Your task to perform on an android device: toggle show notifications on the lock screen Image 0: 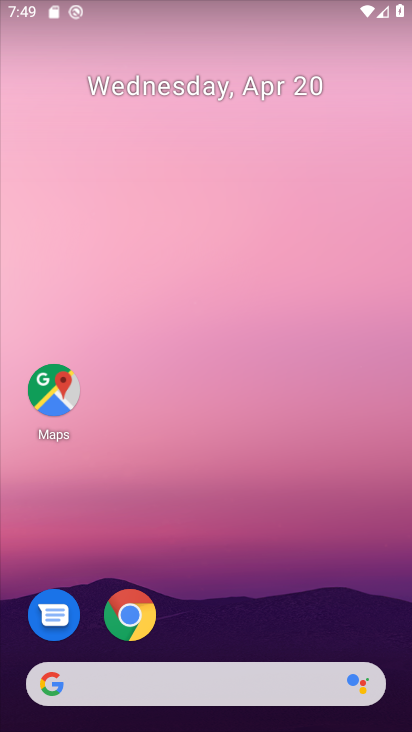
Step 0: drag from (213, 635) to (277, 161)
Your task to perform on an android device: toggle show notifications on the lock screen Image 1: 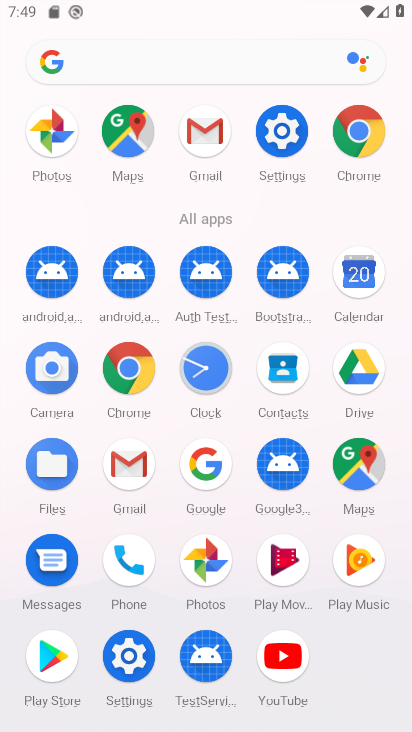
Step 1: click (292, 148)
Your task to perform on an android device: toggle show notifications on the lock screen Image 2: 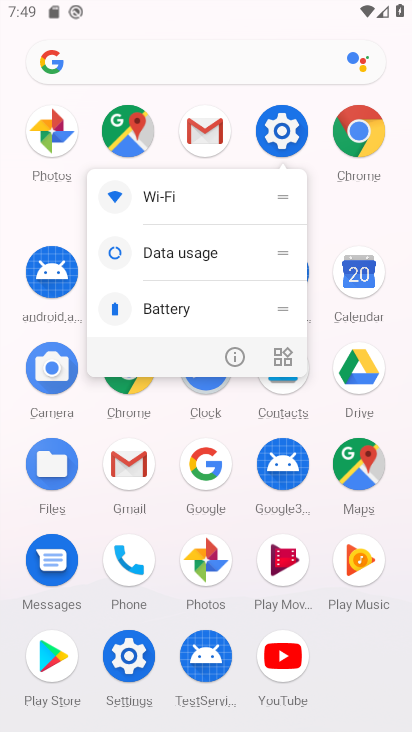
Step 2: click (287, 151)
Your task to perform on an android device: toggle show notifications on the lock screen Image 3: 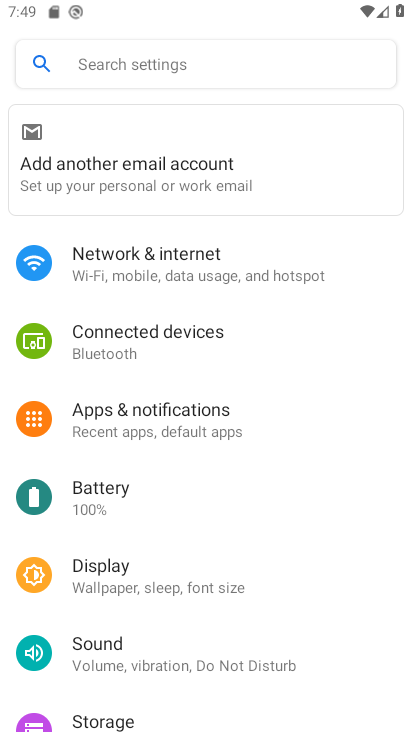
Step 3: click (167, 434)
Your task to perform on an android device: toggle show notifications on the lock screen Image 4: 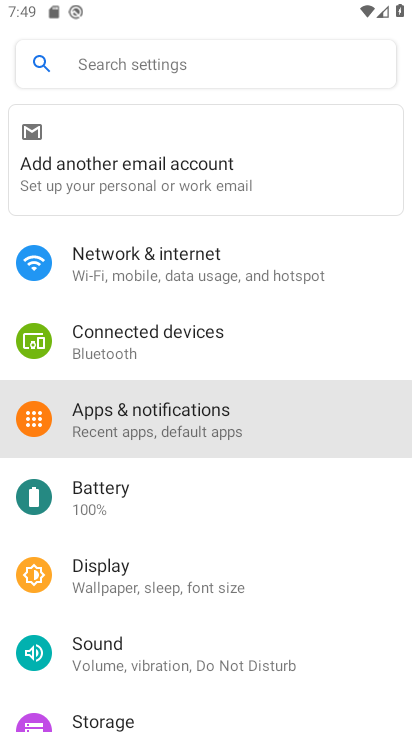
Step 4: click (169, 433)
Your task to perform on an android device: toggle show notifications on the lock screen Image 5: 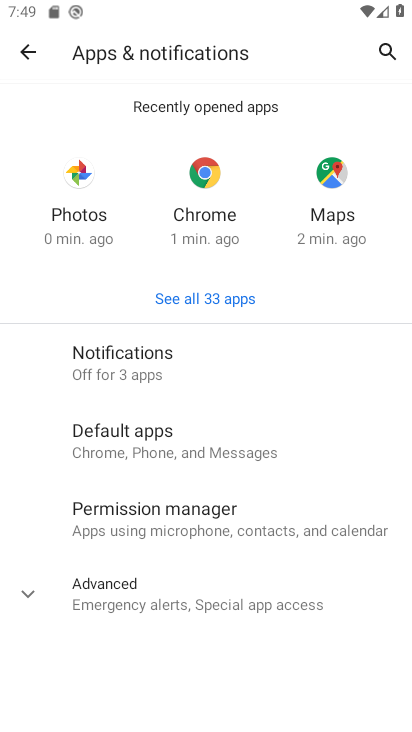
Step 5: click (103, 389)
Your task to perform on an android device: toggle show notifications on the lock screen Image 6: 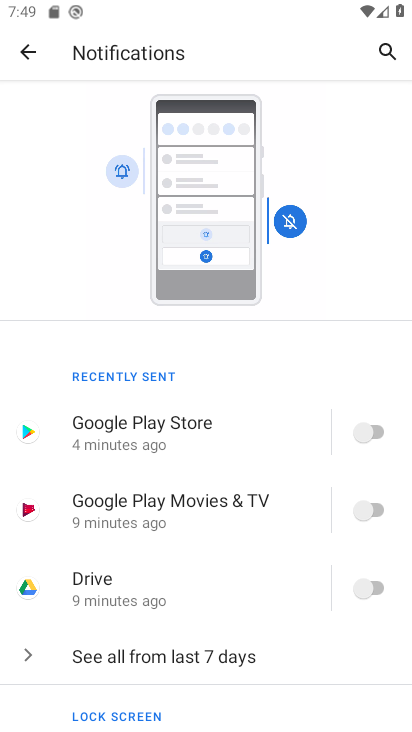
Step 6: drag from (139, 588) to (210, 217)
Your task to perform on an android device: toggle show notifications on the lock screen Image 7: 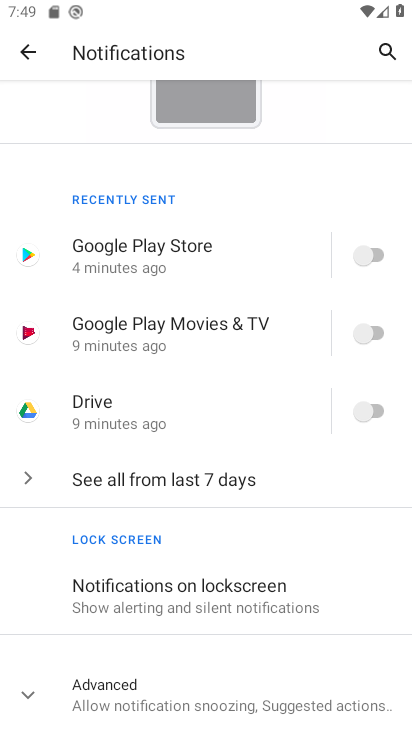
Step 7: click (178, 588)
Your task to perform on an android device: toggle show notifications on the lock screen Image 8: 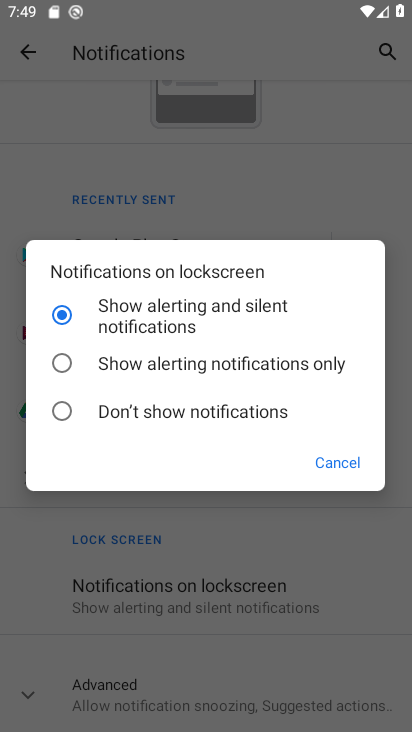
Step 8: click (57, 409)
Your task to perform on an android device: toggle show notifications on the lock screen Image 9: 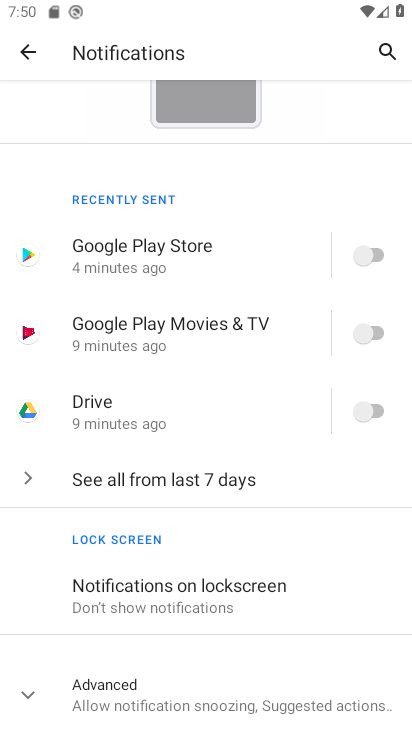
Step 9: task complete